Your task to perform on an android device: turn on the 12-hour format for clock Image 0: 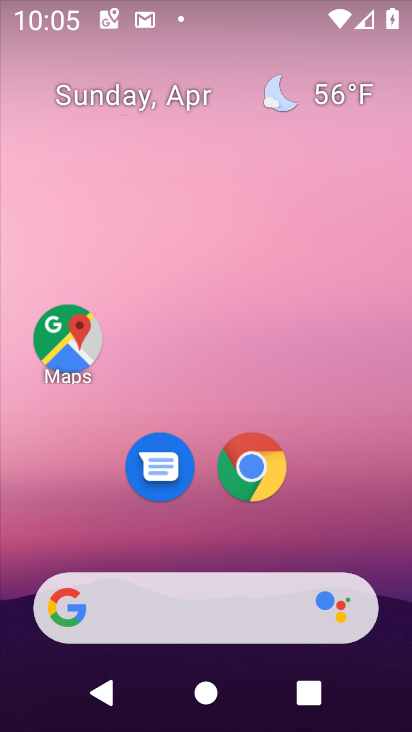
Step 0: click (333, 83)
Your task to perform on an android device: turn on the 12-hour format for clock Image 1: 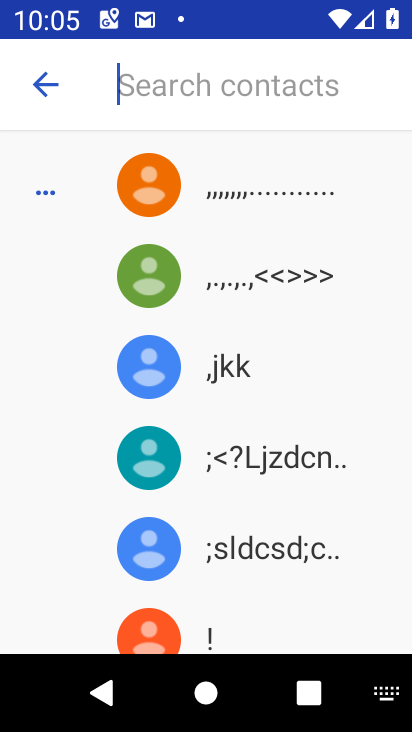
Step 1: press back button
Your task to perform on an android device: turn on the 12-hour format for clock Image 2: 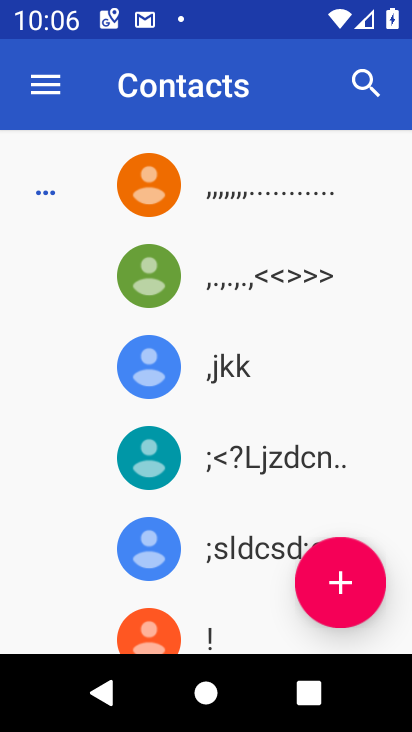
Step 2: press back button
Your task to perform on an android device: turn on the 12-hour format for clock Image 3: 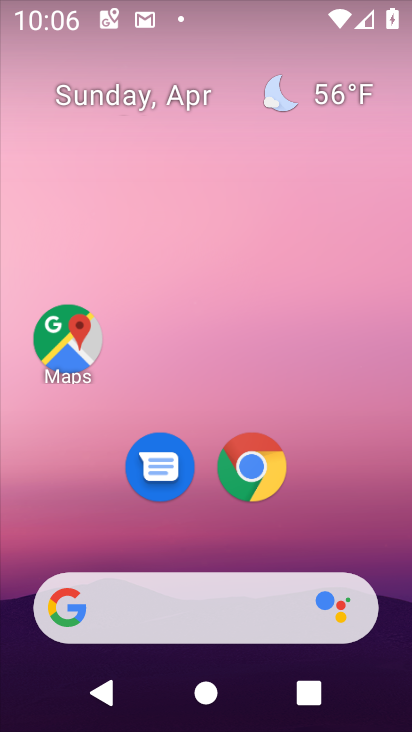
Step 3: drag from (200, 535) to (286, 62)
Your task to perform on an android device: turn on the 12-hour format for clock Image 4: 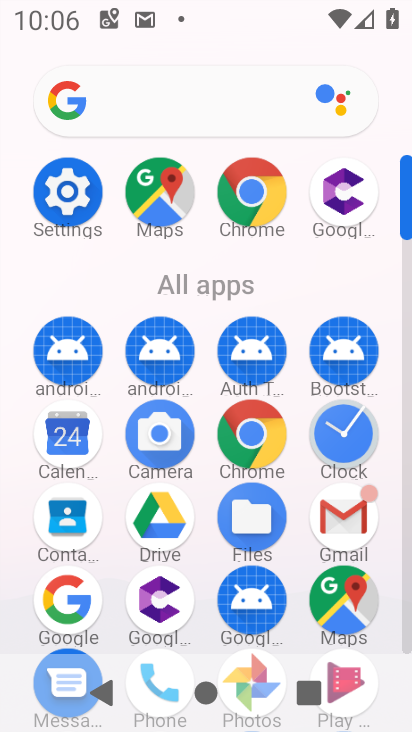
Step 4: click (346, 432)
Your task to perform on an android device: turn on the 12-hour format for clock Image 5: 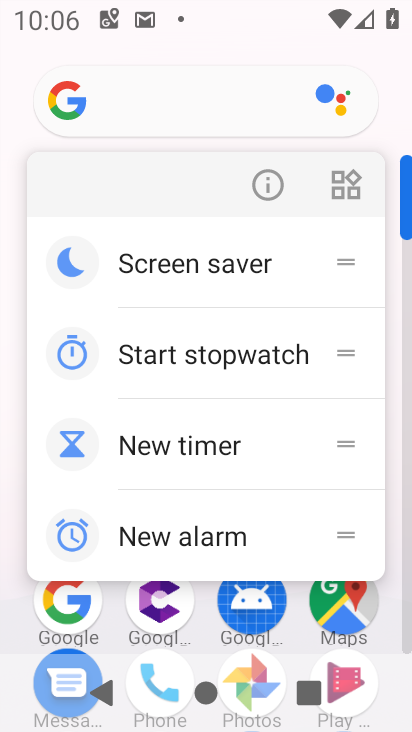
Step 5: press back button
Your task to perform on an android device: turn on the 12-hour format for clock Image 6: 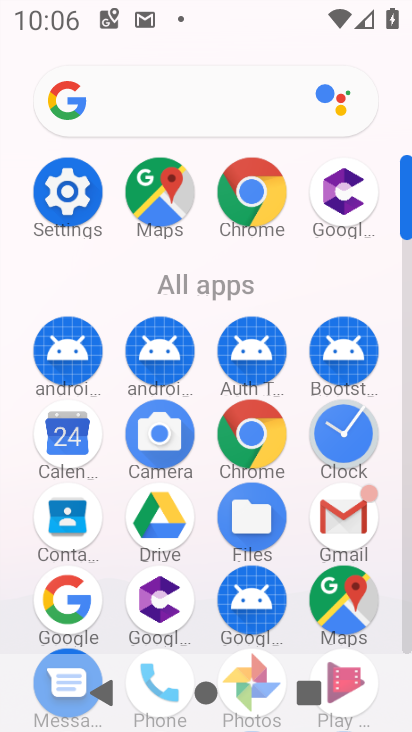
Step 6: click (373, 439)
Your task to perform on an android device: turn on the 12-hour format for clock Image 7: 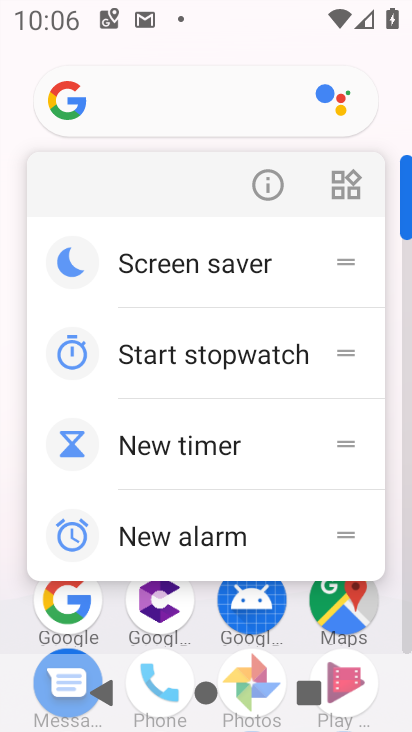
Step 7: press back button
Your task to perform on an android device: turn on the 12-hour format for clock Image 8: 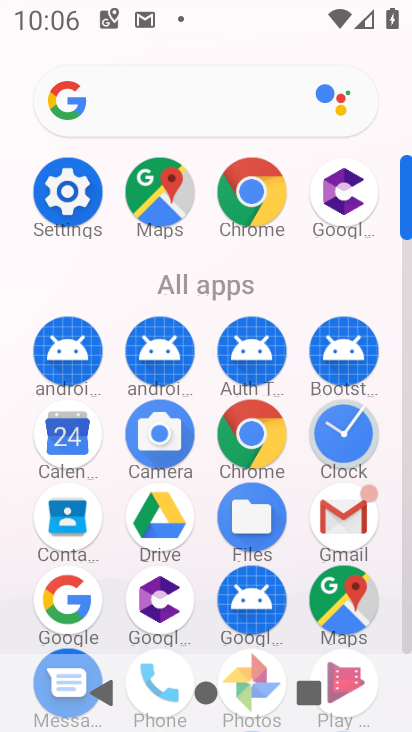
Step 8: click (346, 420)
Your task to perform on an android device: turn on the 12-hour format for clock Image 9: 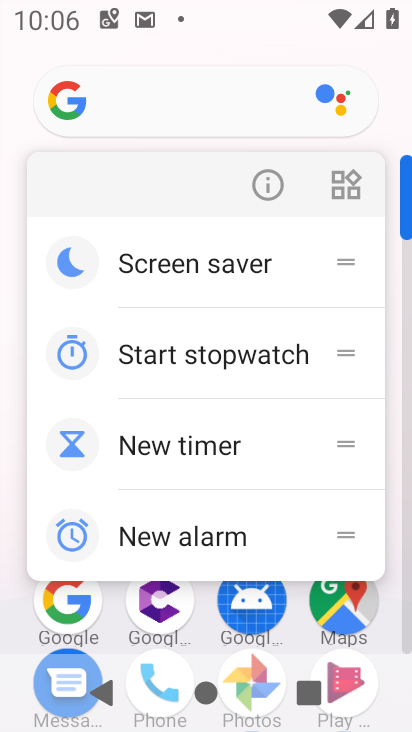
Step 9: press back button
Your task to perform on an android device: turn on the 12-hour format for clock Image 10: 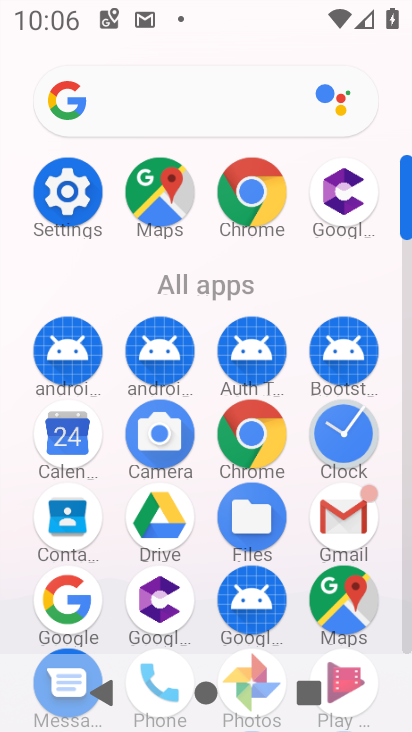
Step 10: click (356, 455)
Your task to perform on an android device: turn on the 12-hour format for clock Image 11: 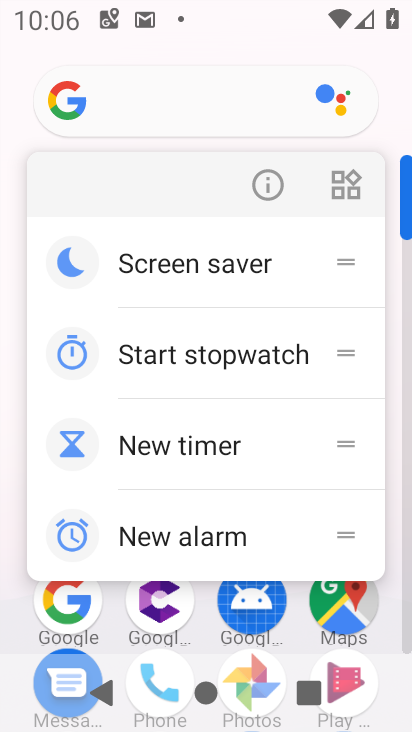
Step 11: press back button
Your task to perform on an android device: turn on the 12-hour format for clock Image 12: 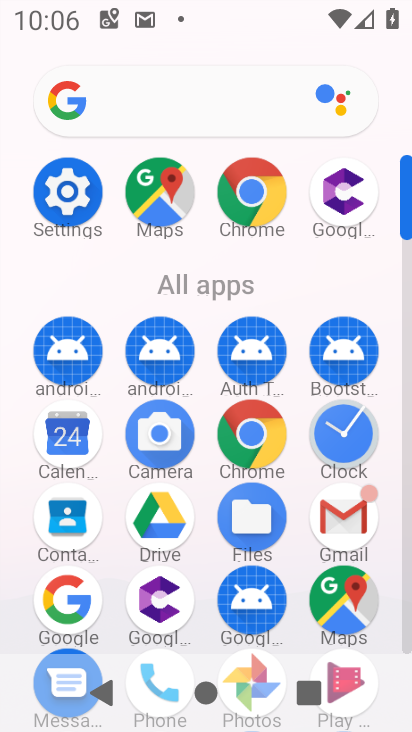
Step 12: click (330, 418)
Your task to perform on an android device: turn on the 12-hour format for clock Image 13: 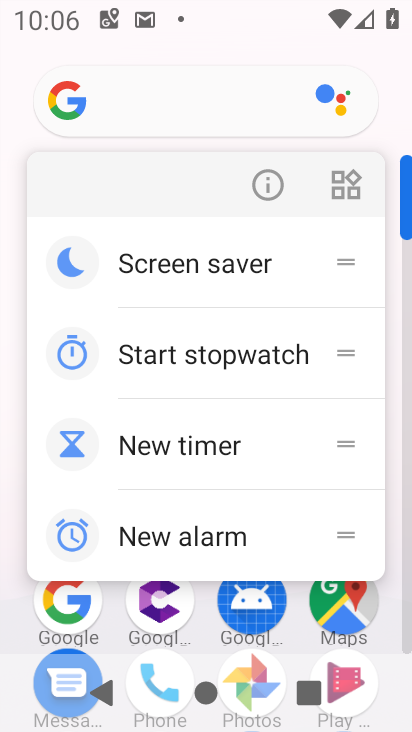
Step 13: press back button
Your task to perform on an android device: turn on the 12-hour format for clock Image 14: 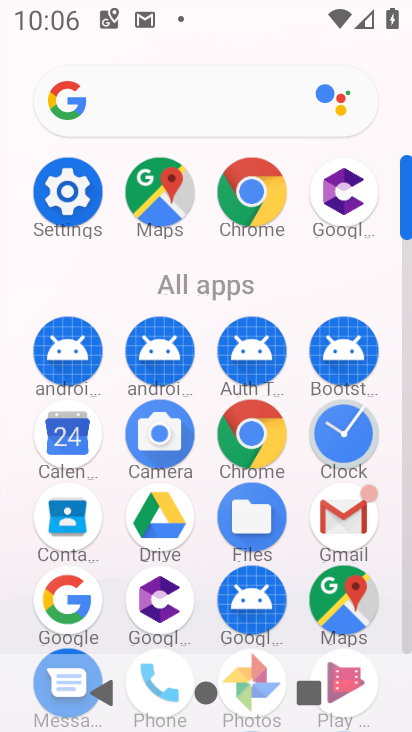
Step 14: click (357, 452)
Your task to perform on an android device: turn on the 12-hour format for clock Image 15: 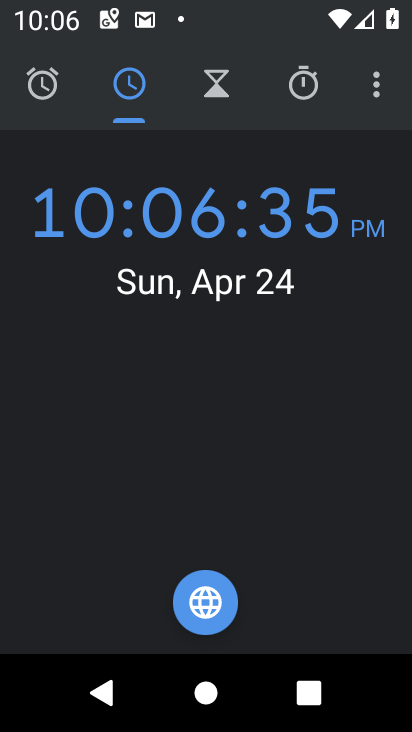
Step 15: click (395, 93)
Your task to perform on an android device: turn on the 12-hour format for clock Image 16: 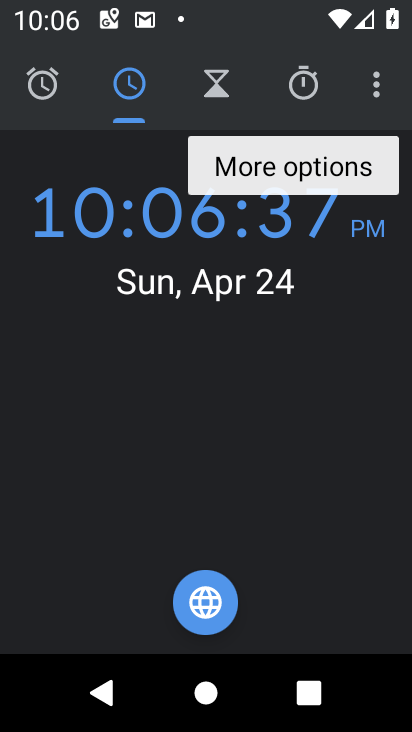
Step 16: drag from (371, 108) to (353, 160)
Your task to perform on an android device: turn on the 12-hour format for clock Image 17: 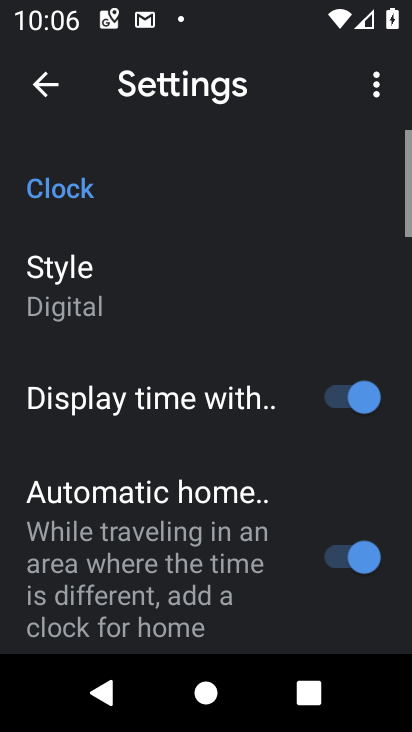
Step 17: drag from (217, 593) to (371, 100)
Your task to perform on an android device: turn on the 12-hour format for clock Image 18: 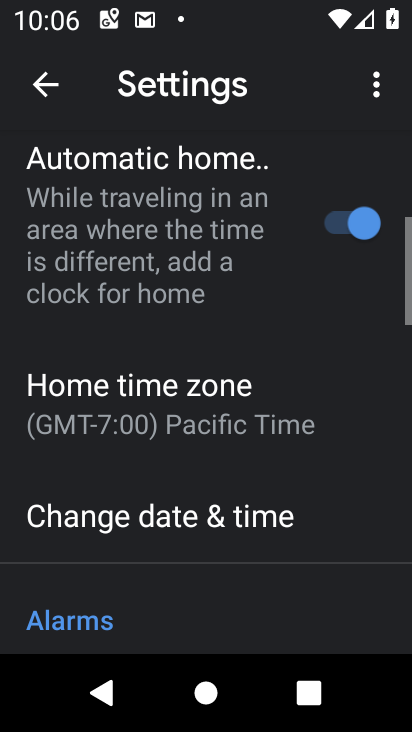
Step 18: drag from (205, 527) to (333, 118)
Your task to perform on an android device: turn on the 12-hour format for clock Image 19: 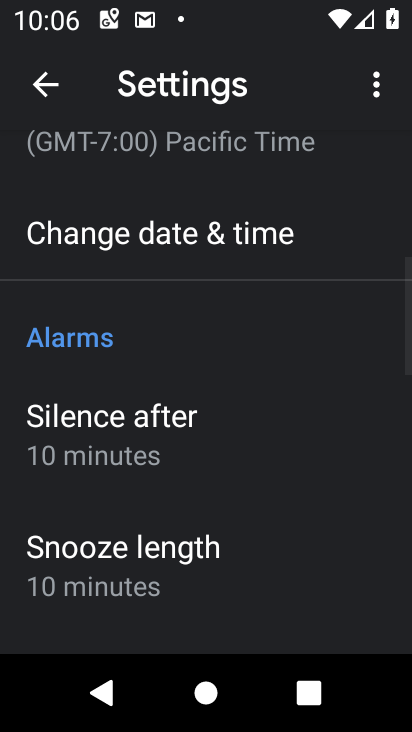
Step 19: drag from (244, 473) to (340, 115)
Your task to perform on an android device: turn on the 12-hour format for clock Image 20: 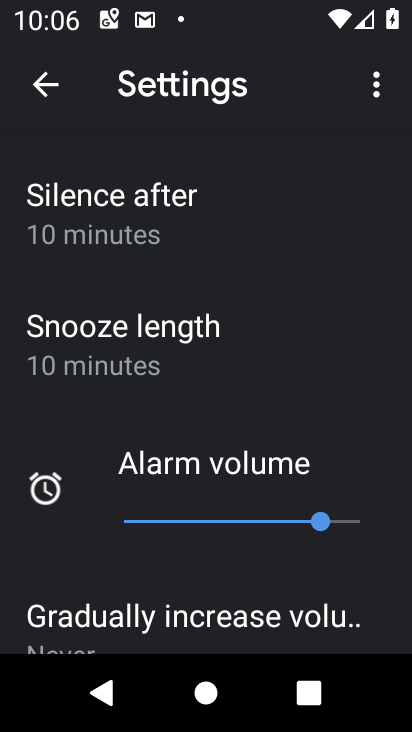
Step 20: drag from (262, 563) to (407, 70)
Your task to perform on an android device: turn on the 12-hour format for clock Image 21: 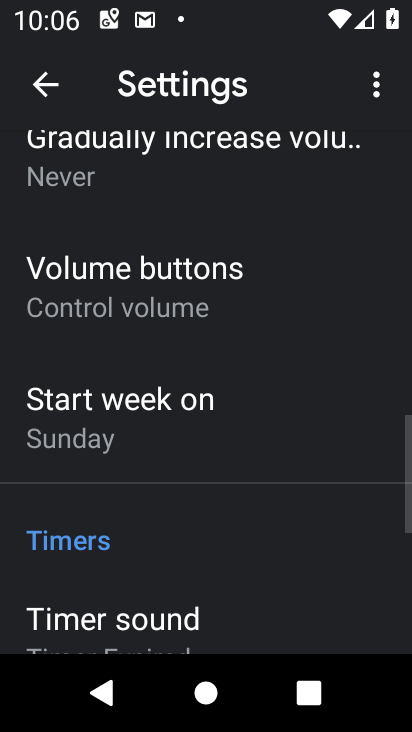
Step 21: drag from (280, 412) to (385, 104)
Your task to perform on an android device: turn on the 12-hour format for clock Image 22: 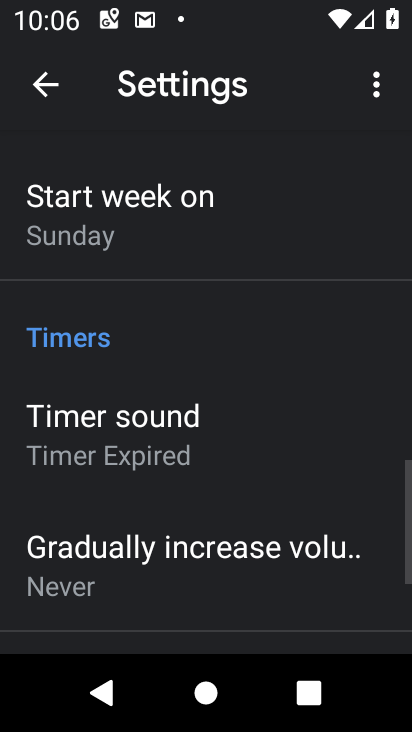
Step 22: drag from (252, 544) to (379, 116)
Your task to perform on an android device: turn on the 12-hour format for clock Image 23: 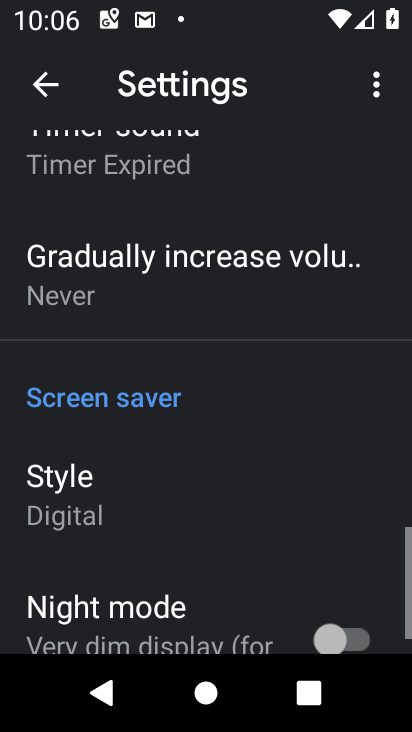
Step 23: click (242, 603)
Your task to perform on an android device: turn on the 12-hour format for clock Image 24: 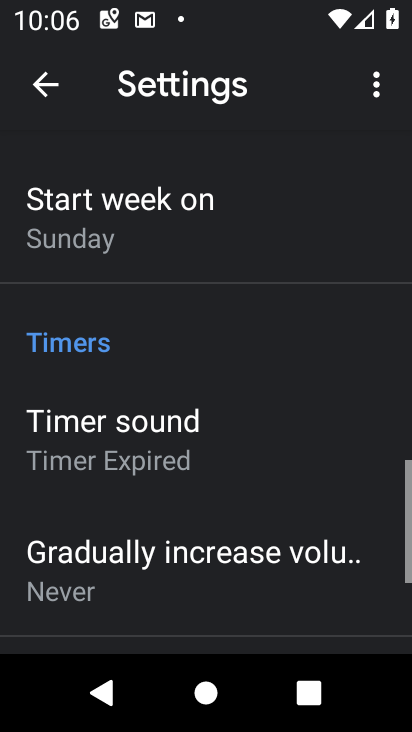
Step 24: drag from (268, 297) to (224, 634)
Your task to perform on an android device: turn on the 12-hour format for clock Image 25: 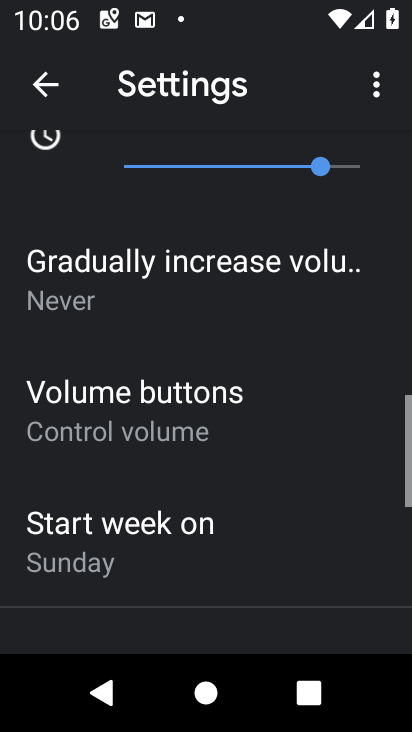
Step 25: drag from (237, 359) to (216, 620)
Your task to perform on an android device: turn on the 12-hour format for clock Image 26: 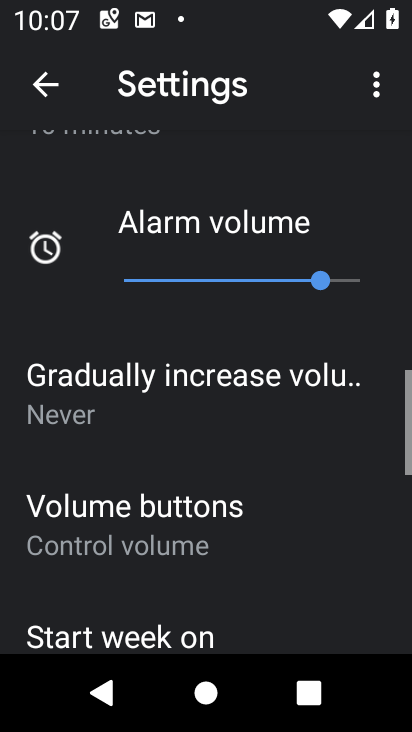
Step 26: drag from (229, 329) to (204, 610)
Your task to perform on an android device: turn on the 12-hour format for clock Image 27: 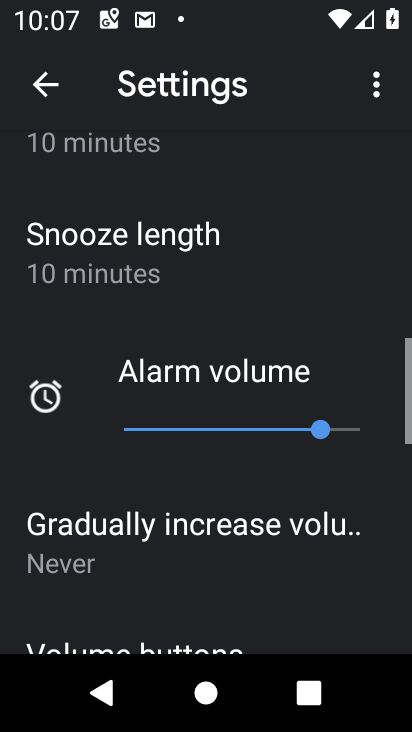
Step 27: drag from (246, 295) to (166, 662)
Your task to perform on an android device: turn on the 12-hour format for clock Image 28: 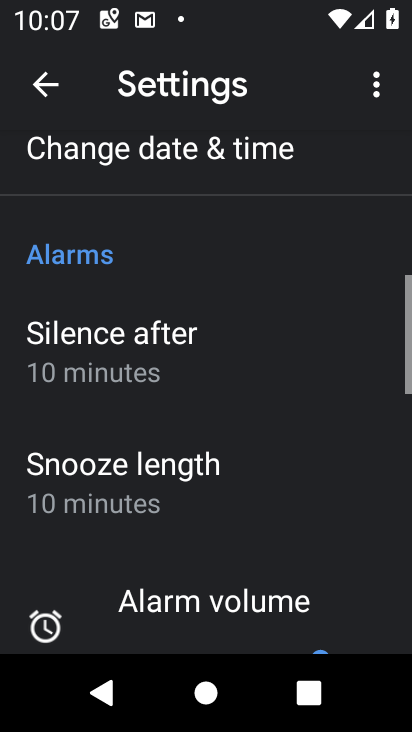
Step 28: drag from (201, 377) to (169, 557)
Your task to perform on an android device: turn on the 12-hour format for clock Image 29: 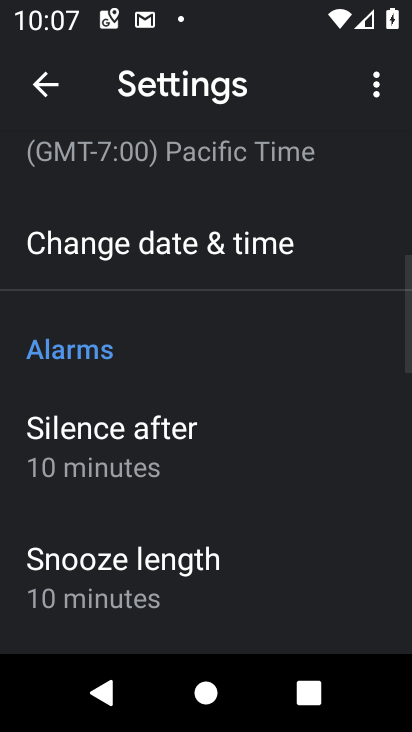
Step 29: click (237, 276)
Your task to perform on an android device: turn on the 12-hour format for clock Image 30: 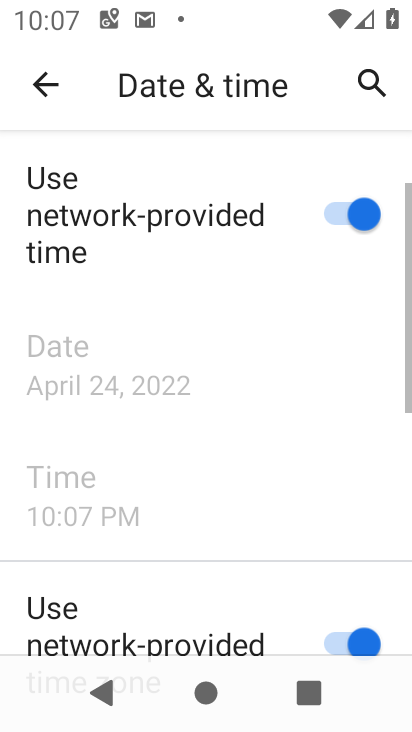
Step 30: task complete